Your task to perform on an android device: toggle javascript in the chrome app Image 0: 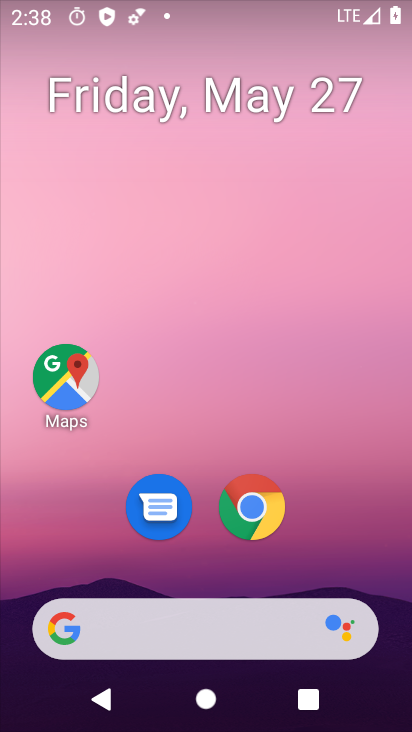
Step 0: click (263, 501)
Your task to perform on an android device: toggle javascript in the chrome app Image 1: 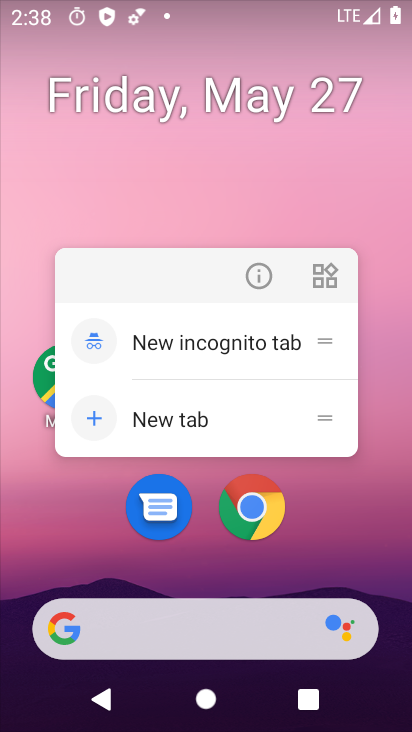
Step 1: click (251, 509)
Your task to perform on an android device: toggle javascript in the chrome app Image 2: 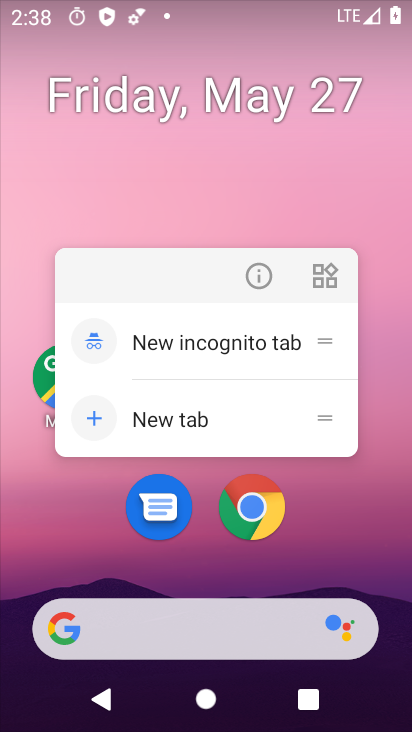
Step 2: click (251, 509)
Your task to perform on an android device: toggle javascript in the chrome app Image 3: 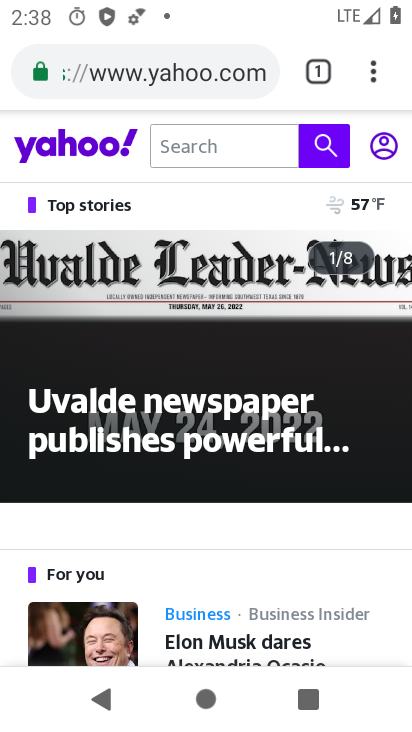
Step 3: click (366, 62)
Your task to perform on an android device: toggle javascript in the chrome app Image 4: 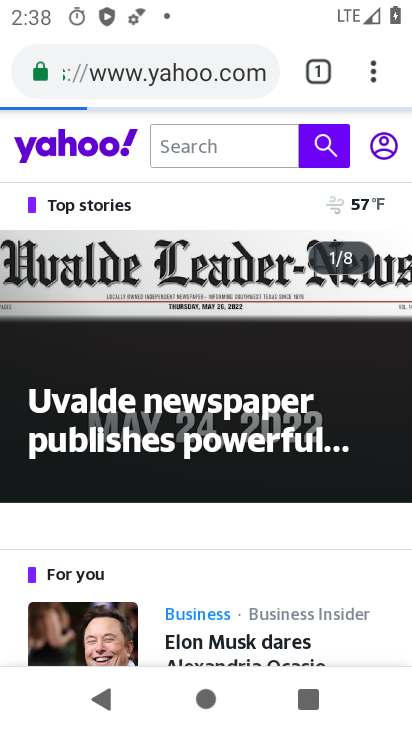
Step 4: click (366, 74)
Your task to perform on an android device: toggle javascript in the chrome app Image 5: 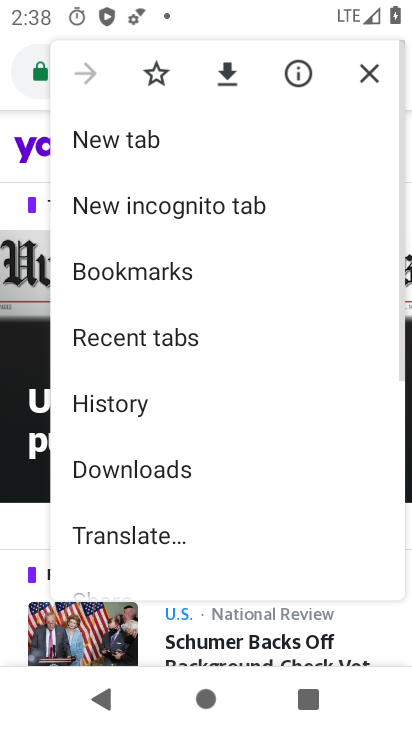
Step 5: drag from (159, 534) to (212, 116)
Your task to perform on an android device: toggle javascript in the chrome app Image 6: 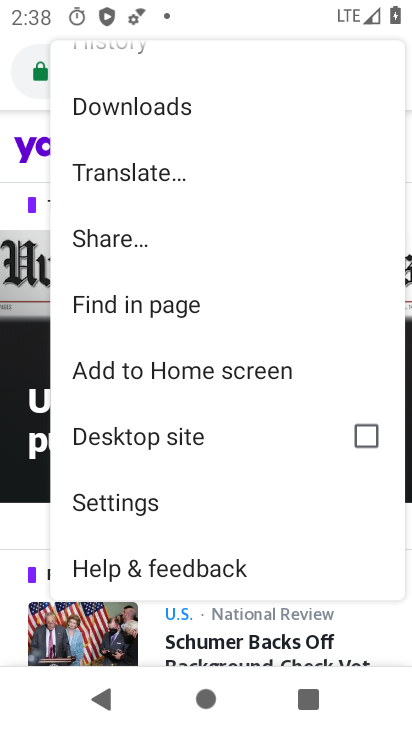
Step 6: click (118, 509)
Your task to perform on an android device: toggle javascript in the chrome app Image 7: 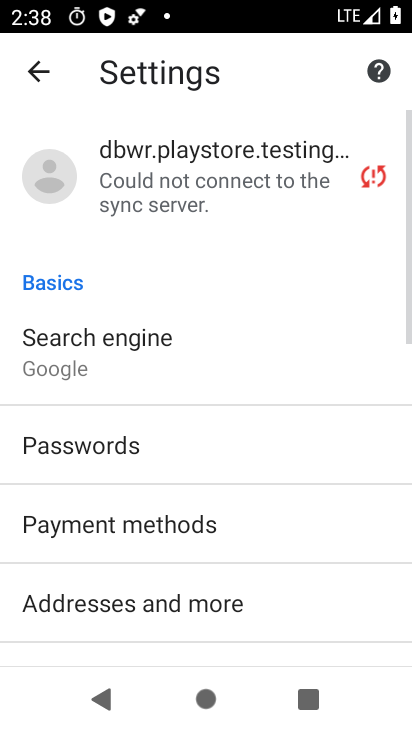
Step 7: drag from (118, 611) to (124, 196)
Your task to perform on an android device: toggle javascript in the chrome app Image 8: 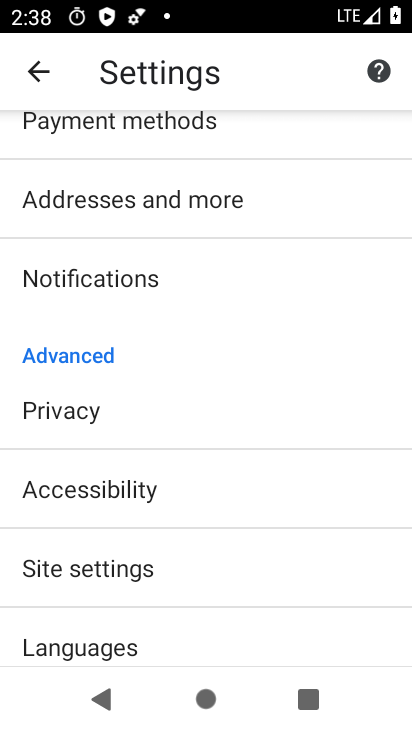
Step 8: click (72, 565)
Your task to perform on an android device: toggle javascript in the chrome app Image 9: 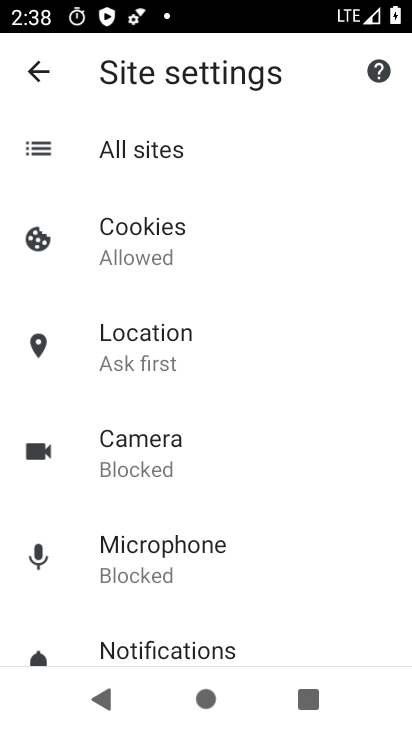
Step 9: drag from (185, 653) to (175, 152)
Your task to perform on an android device: toggle javascript in the chrome app Image 10: 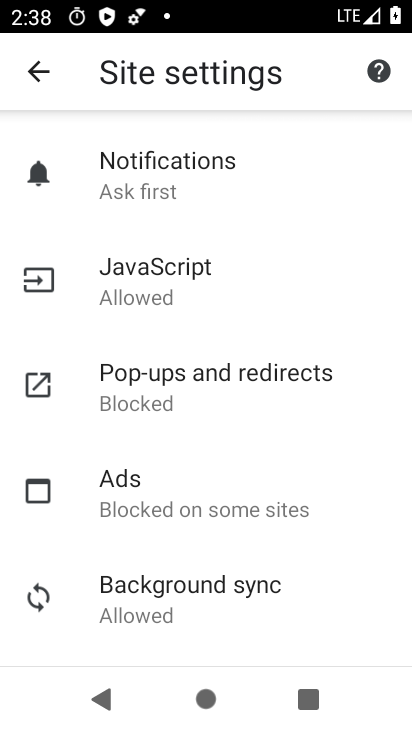
Step 10: click (146, 299)
Your task to perform on an android device: toggle javascript in the chrome app Image 11: 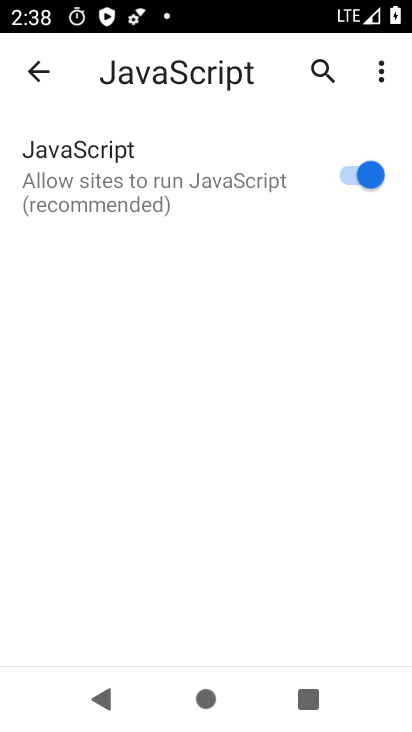
Step 11: click (352, 168)
Your task to perform on an android device: toggle javascript in the chrome app Image 12: 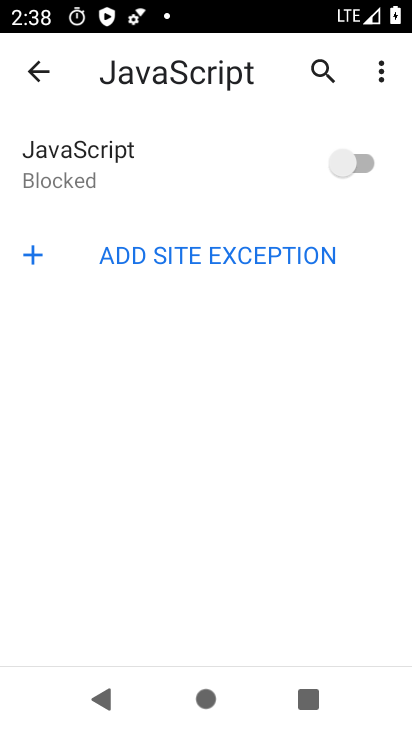
Step 12: task complete